Your task to perform on an android device: see sites visited before in the chrome app Image 0: 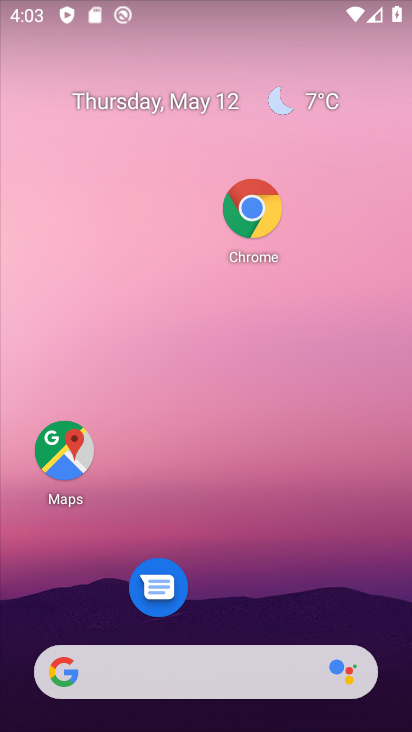
Step 0: click (255, 238)
Your task to perform on an android device: see sites visited before in the chrome app Image 1: 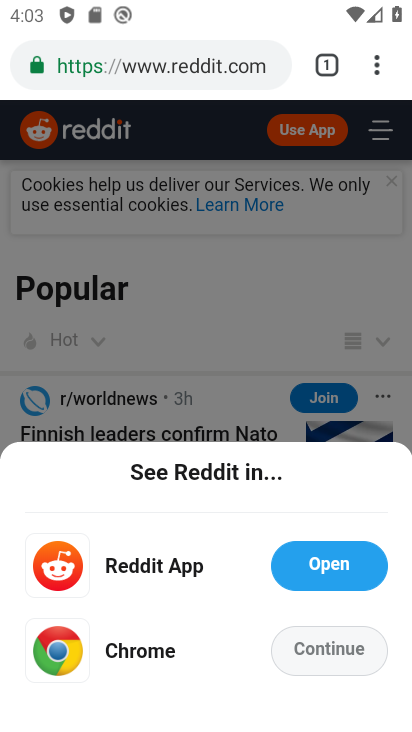
Step 1: click (377, 63)
Your task to perform on an android device: see sites visited before in the chrome app Image 2: 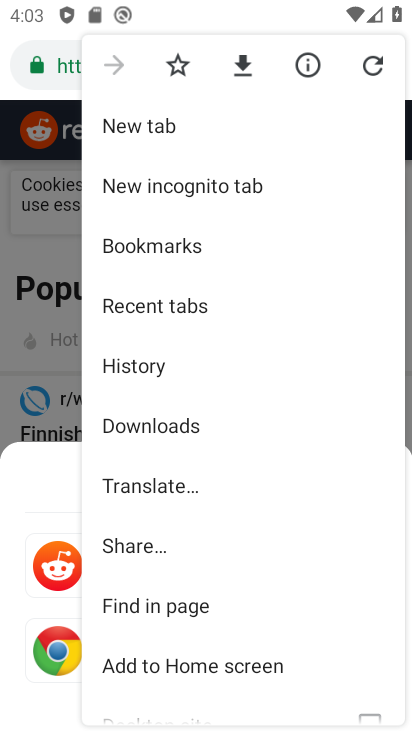
Step 2: click (133, 367)
Your task to perform on an android device: see sites visited before in the chrome app Image 3: 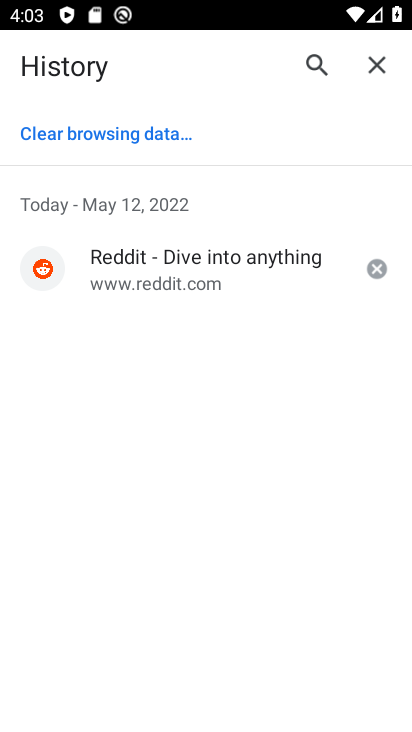
Step 3: task complete